Your task to perform on an android device: turn off notifications settings in the gmail app Image 0: 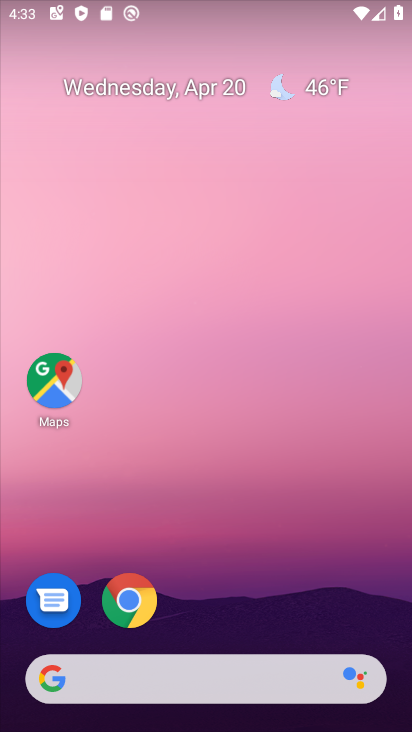
Step 0: drag from (213, 582) to (235, 109)
Your task to perform on an android device: turn off notifications settings in the gmail app Image 1: 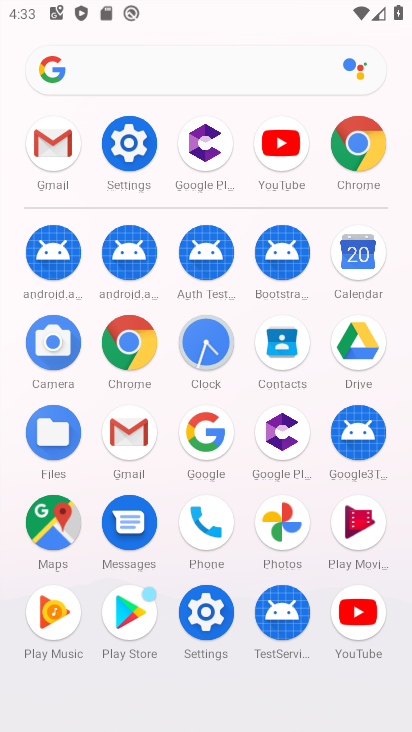
Step 1: click (125, 422)
Your task to perform on an android device: turn off notifications settings in the gmail app Image 2: 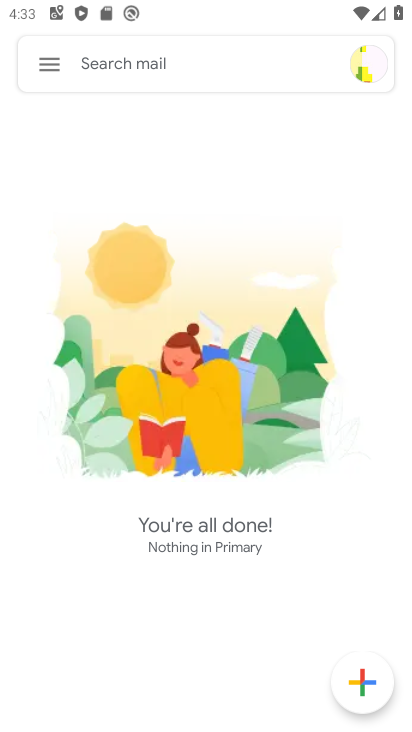
Step 2: click (46, 60)
Your task to perform on an android device: turn off notifications settings in the gmail app Image 3: 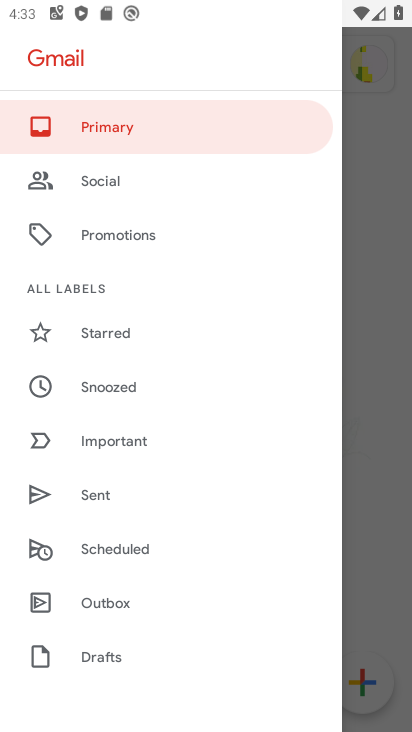
Step 3: drag from (153, 627) to (113, 304)
Your task to perform on an android device: turn off notifications settings in the gmail app Image 4: 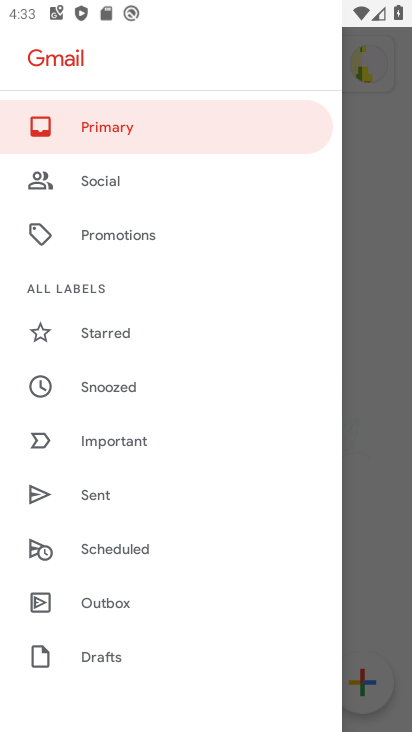
Step 4: drag from (109, 591) to (123, 150)
Your task to perform on an android device: turn off notifications settings in the gmail app Image 5: 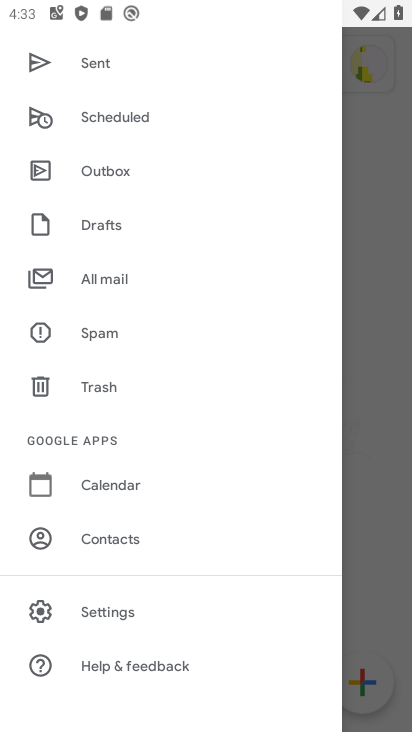
Step 5: click (138, 606)
Your task to perform on an android device: turn off notifications settings in the gmail app Image 6: 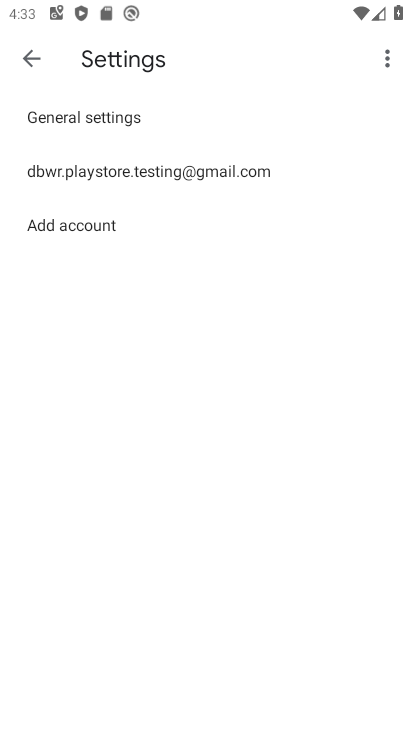
Step 6: click (150, 110)
Your task to perform on an android device: turn off notifications settings in the gmail app Image 7: 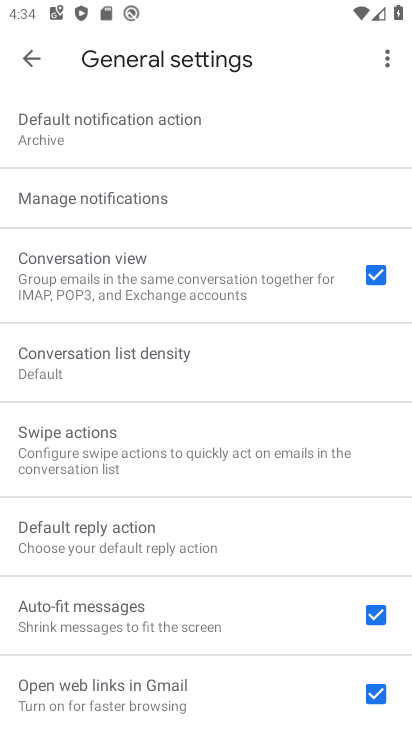
Step 7: click (138, 212)
Your task to perform on an android device: turn off notifications settings in the gmail app Image 8: 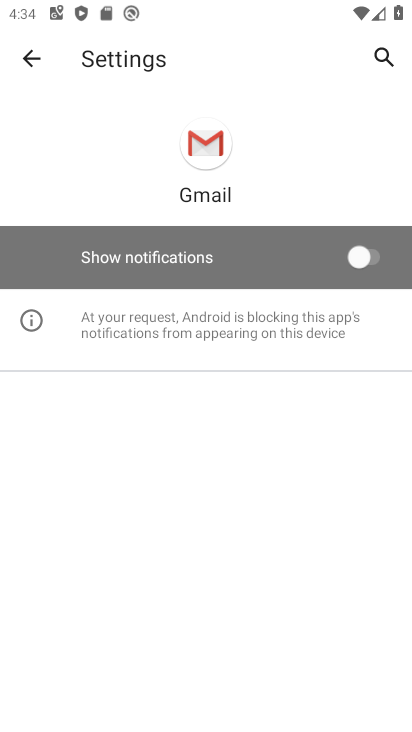
Step 8: task complete